Your task to perform on an android device: check android version Image 0: 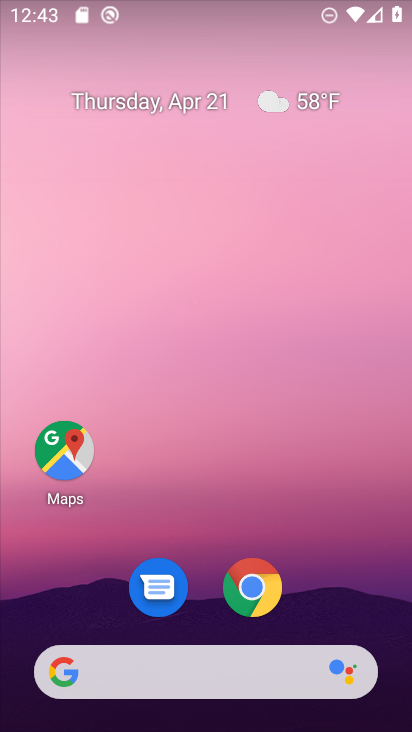
Step 0: click (272, 368)
Your task to perform on an android device: check android version Image 1: 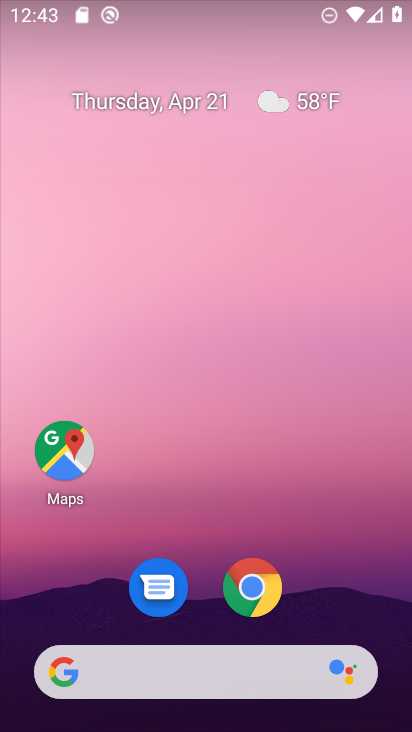
Step 1: drag from (201, 562) to (380, 14)
Your task to perform on an android device: check android version Image 2: 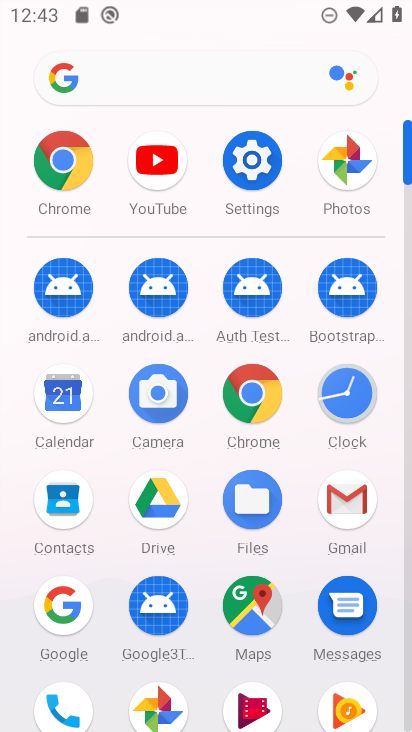
Step 2: click (262, 175)
Your task to perform on an android device: check android version Image 3: 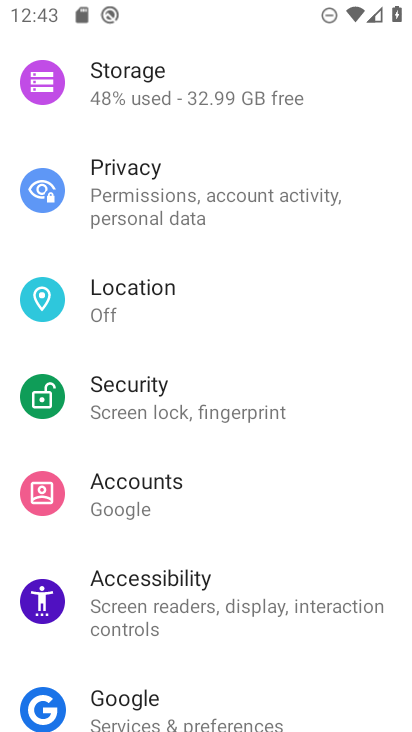
Step 3: drag from (172, 582) to (278, 30)
Your task to perform on an android device: check android version Image 4: 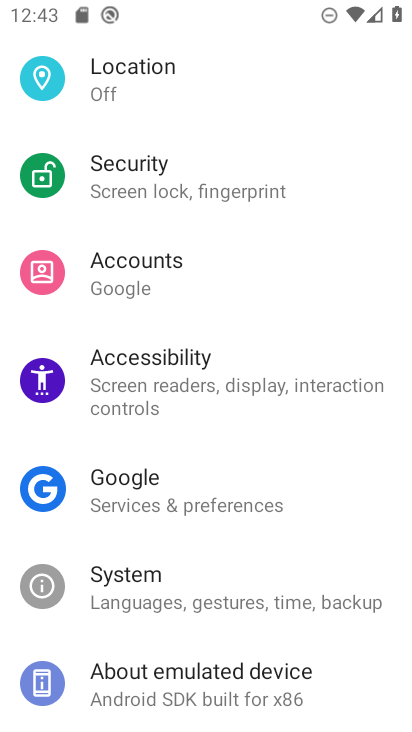
Step 4: click (171, 672)
Your task to perform on an android device: check android version Image 5: 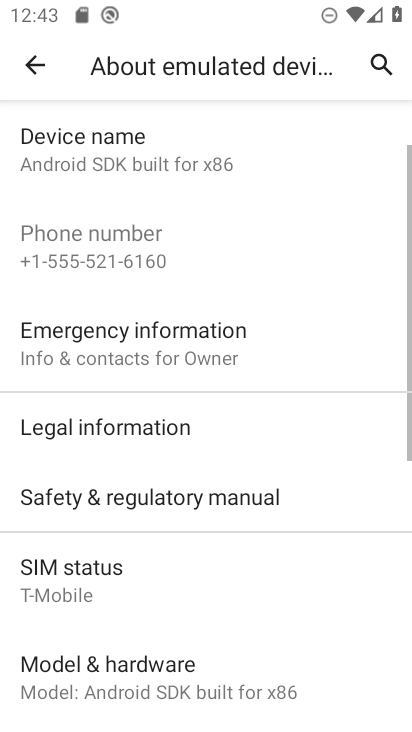
Step 5: drag from (167, 570) to (206, 185)
Your task to perform on an android device: check android version Image 6: 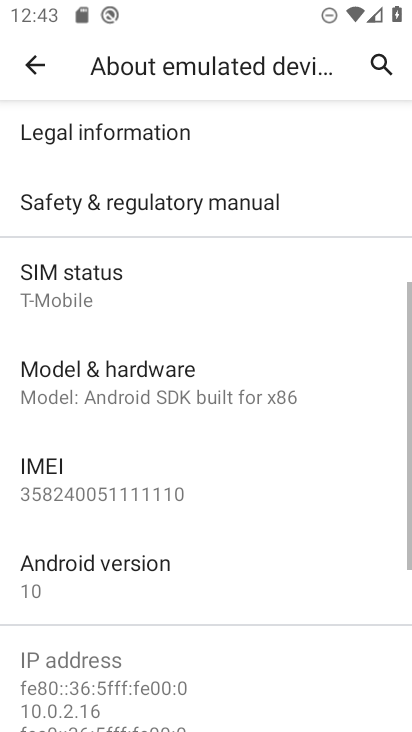
Step 6: click (107, 571)
Your task to perform on an android device: check android version Image 7: 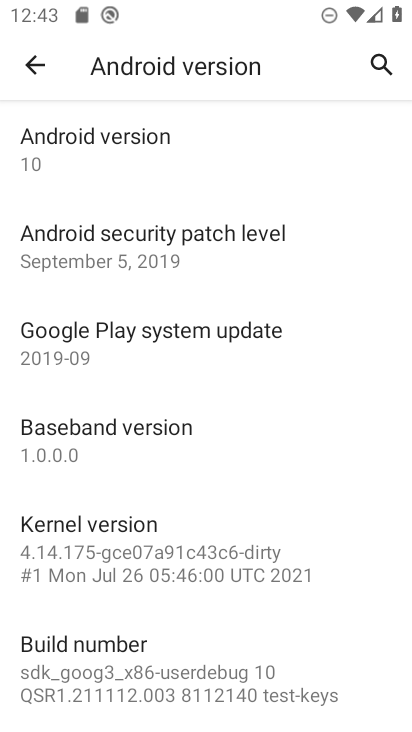
Step 7: task complete